Your task to perform on an android device: check storage Image 0: 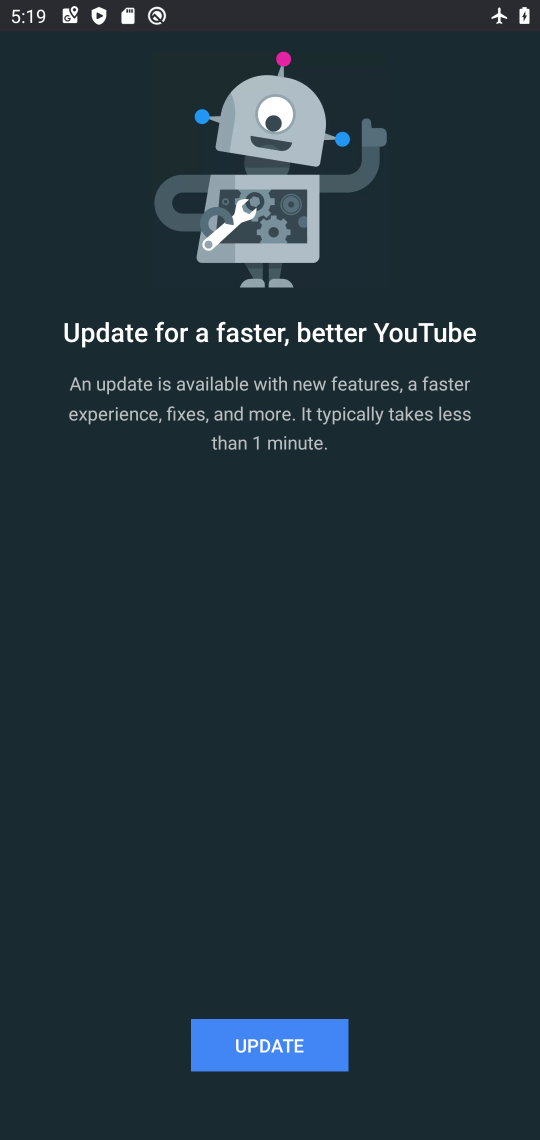
Step 0: press home button
Your task to perform on an android device: check storage Image 1: 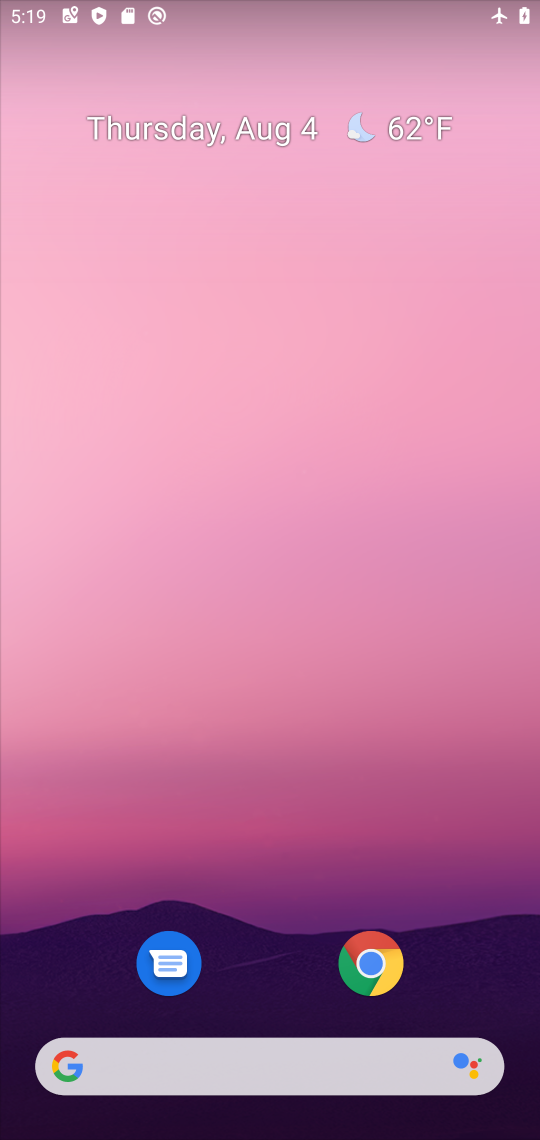
Step 1: drag from (280, 924) to (270, 72)
Your task to perform on an android device: check storage Image 2: 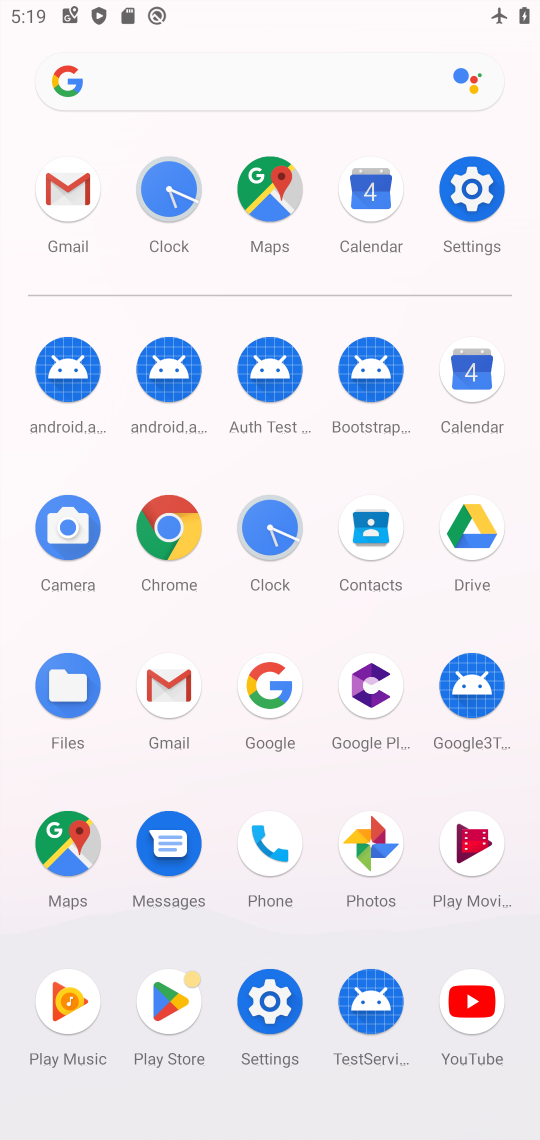
Step 2: click (470, 180)
Your task to perform on an android device: check storage Image 3: 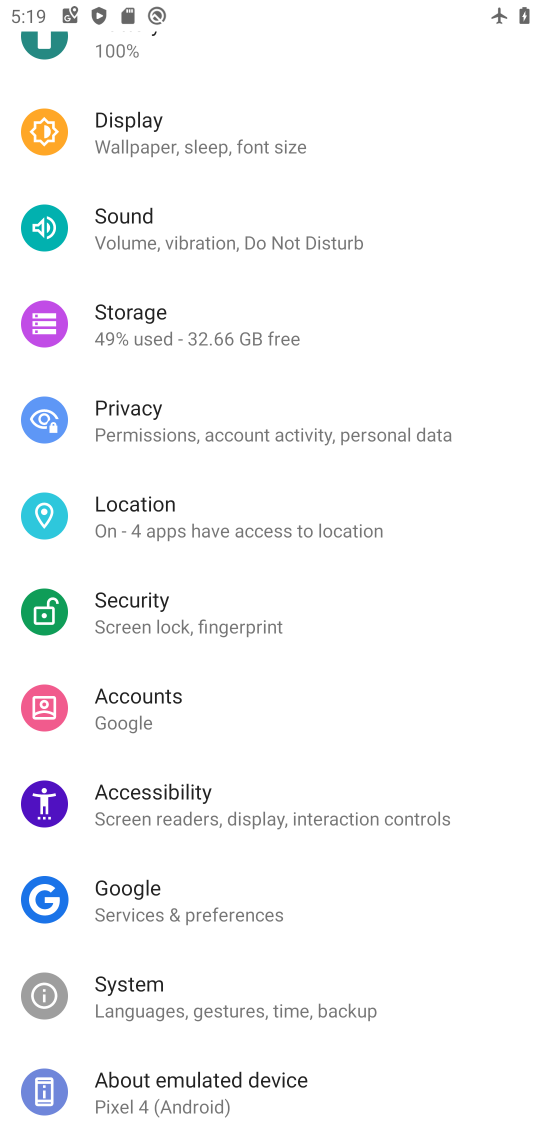
Step 3: click (145, 313)
Your task to perform on an android device: check storage Image 4: 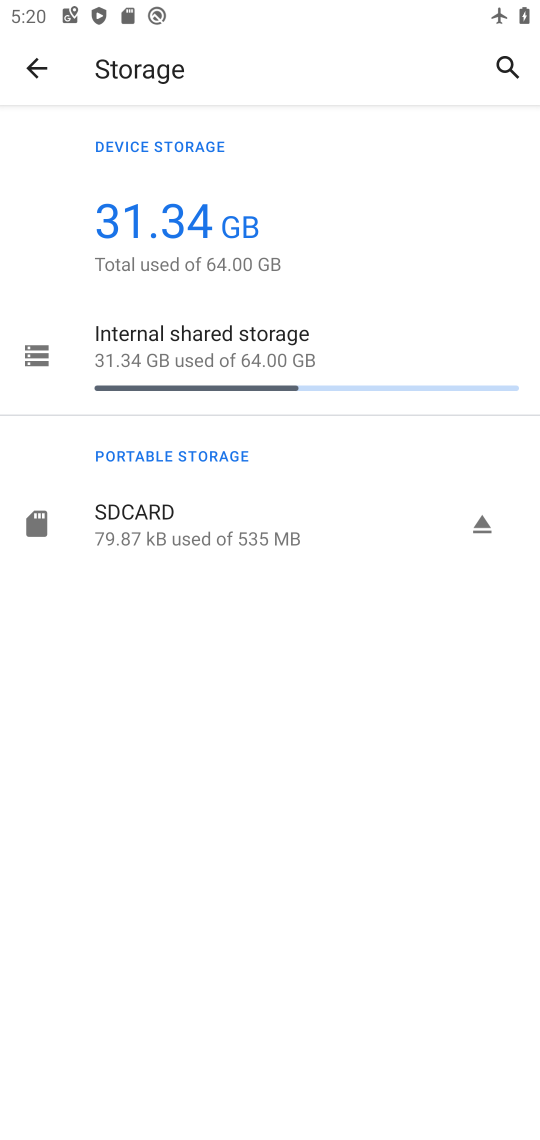
Step 4: task complete